Your task to perform on an android device: turn on the 12-hour format for clock Image 0: 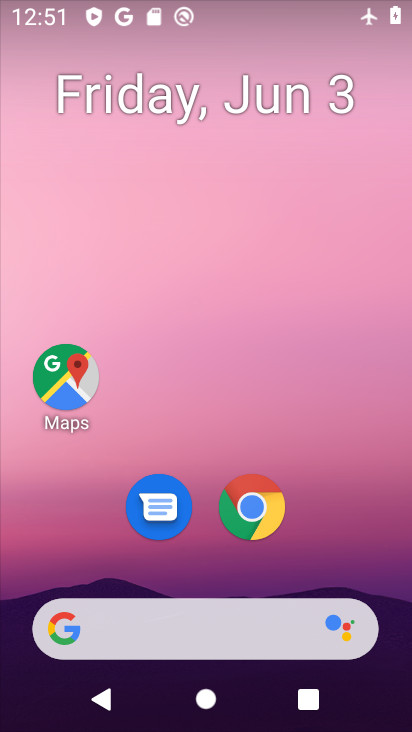
Step 0: drag from (382, 525) to (364, 122)
Your task to perform on an android device: turn on the 12-hour format for clock Image 1: 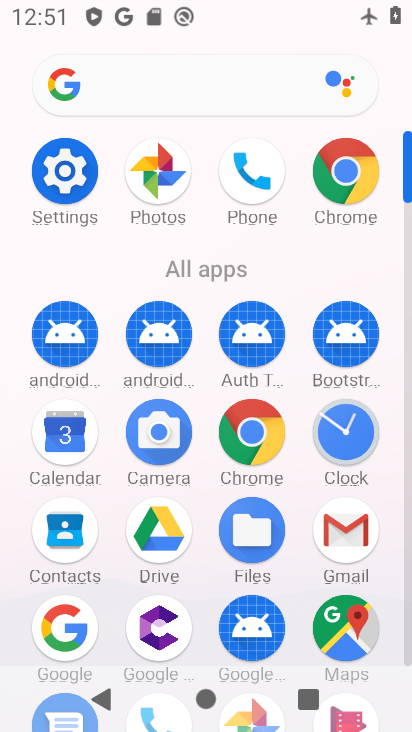
Step 1: click (49, 183)
Your task to perform on an android device: turn on the 12-hour format for clock Image 2: 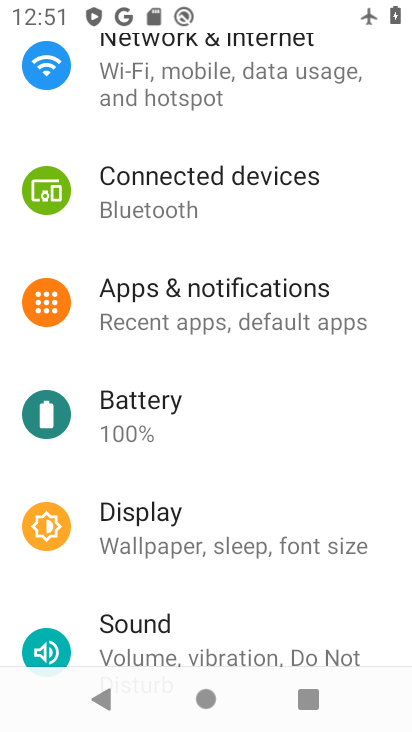
Step 2: press home button
Your task to perform on an android device: turn on the 12-hour format for clock Image 3: 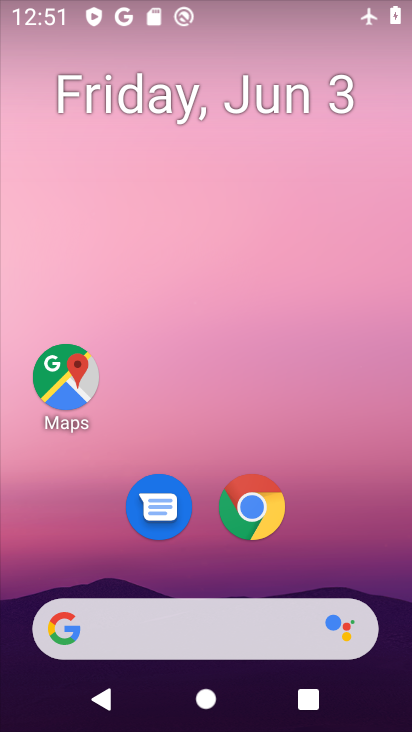
Step 3: drag from (381, 571) to (378, 63)
Your task to perform on an android device: turn on the 12-hour format for clock Image 4: 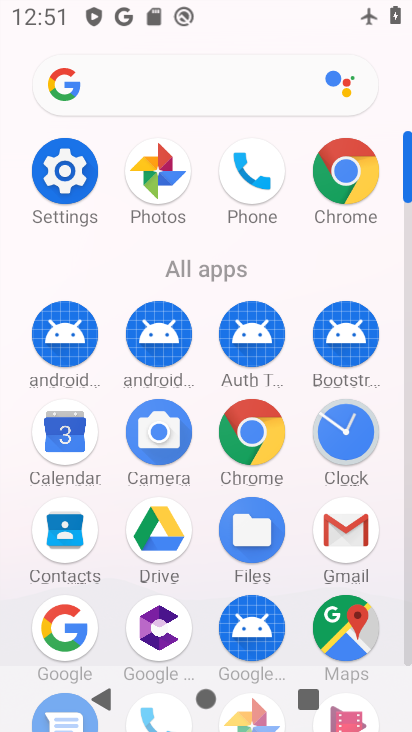
Step 4: click (351, 437)
Your task to perform on an android device: turn on the 12-hour format for clock Image 5: 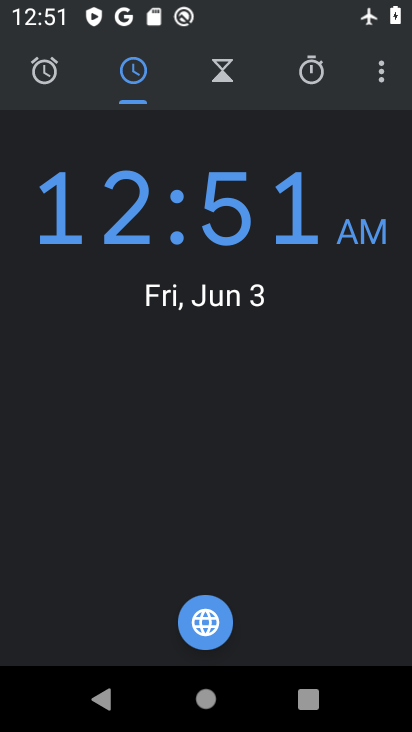
Step 5: click (378, 87)
Your task to perform on an android device: turn on the 12-hour format for clock Image 6: 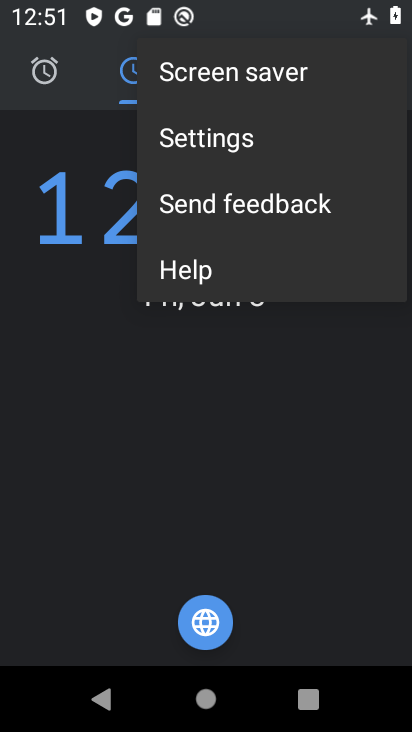
Step 6: click (330, 123)
Your task to perform on an android device: turn on the 12-hour format for clock Image 7: 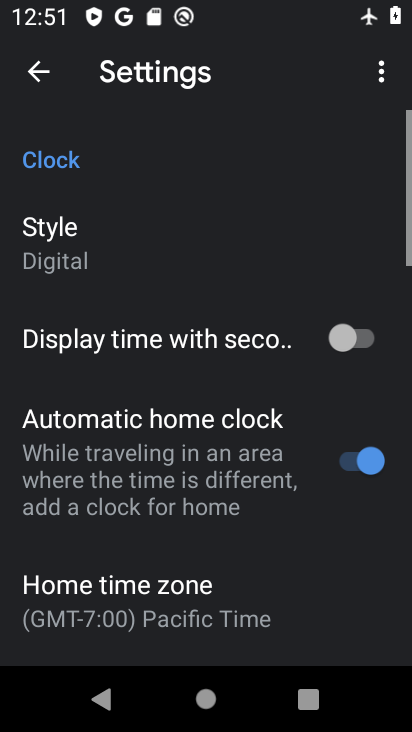
Step 7: drag from (264, 630) to (282, 198)
Your task to perform on an android device: turn on the 12-hour format for clock Image 8: 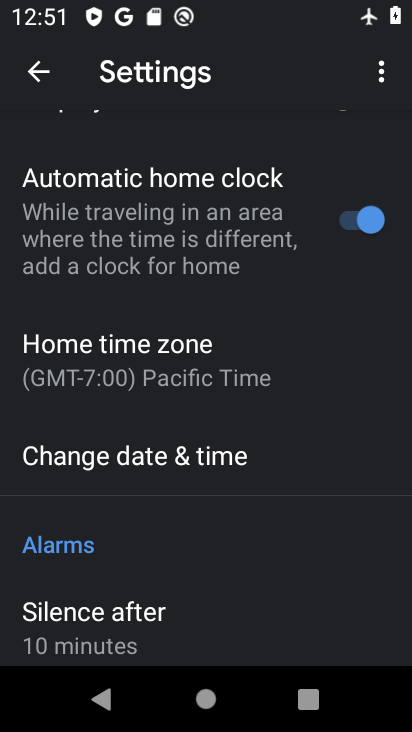
Step 8: click (286, 460)
Your task to perform on an android device: turn on the 12-hour format for clock Image 9: 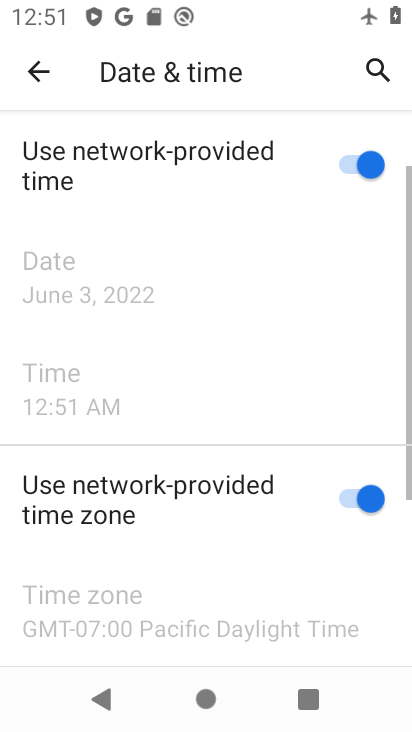
Step 9: task complete